Your task to perform on an android device: Do I have any events this weekend? Image 0: 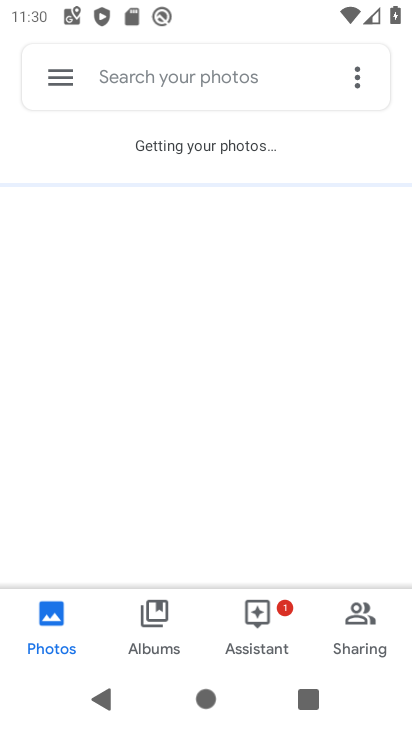
Step 0: press home button
Your task to perform on an android device: Do I have any events this weekend? Image 1: 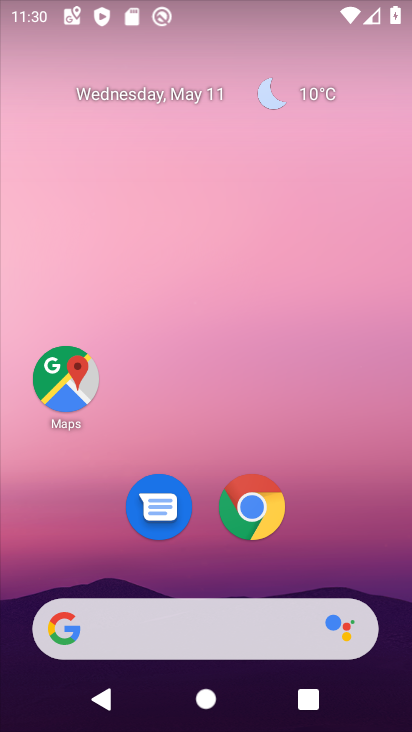
Step 1: drag from (343, 475) to (273, 184)
Your task to perform on an android device: Do I have any events this weekend? Image 2: 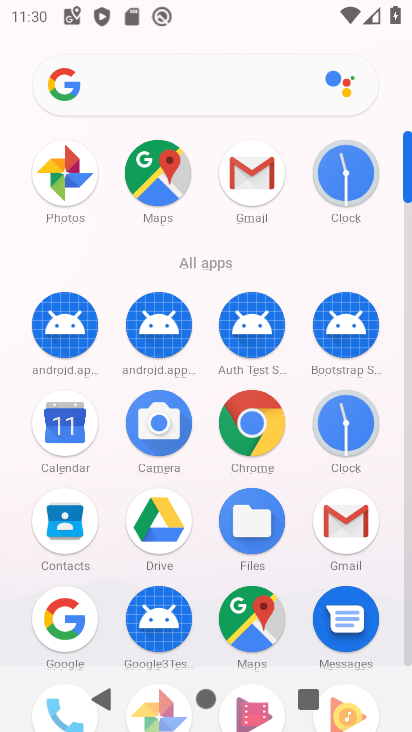
Step 2: click (65, 427)
Your task to perform on an android device: Do I have any events this weekend? Image 3: 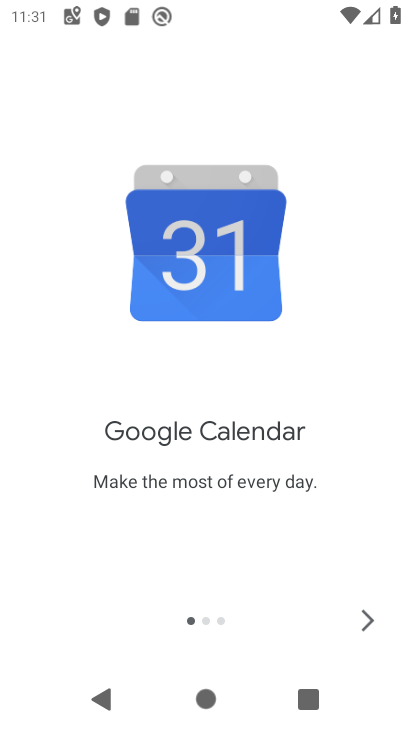
Step 3: click (365, 622)
Your task to perform on an android device: Do I have any events this weekend? Image 4: 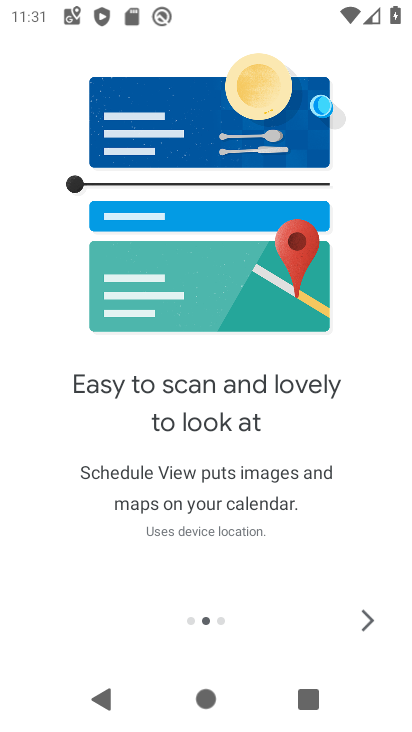
Step 4: click (365, 622)
Your task to perform on an android device: Do I have any events this weekend? Image 5: 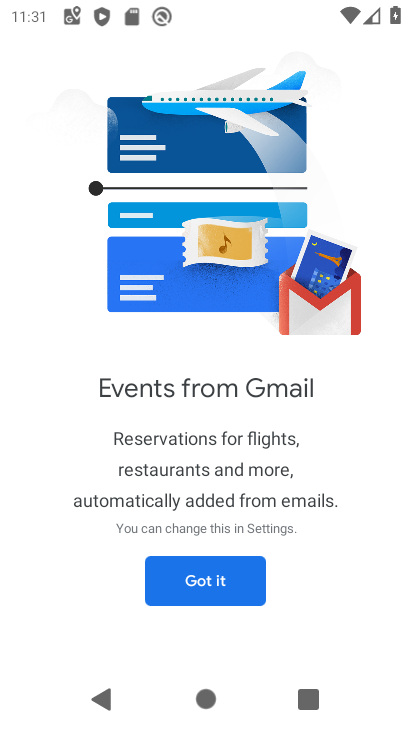
Step 5: click (215, 577)
Your task to perform on an android device: Do I have any events this weekend? Image 6: 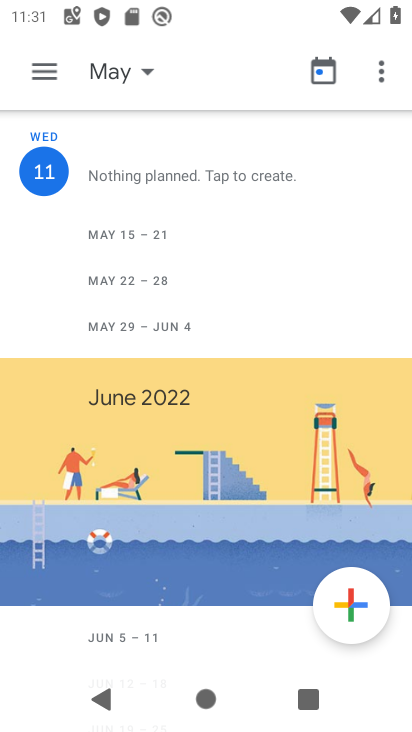
Step 6: click (48, 75)
Your task to perform on an android device: Do I have any events this weekend? Image 7: 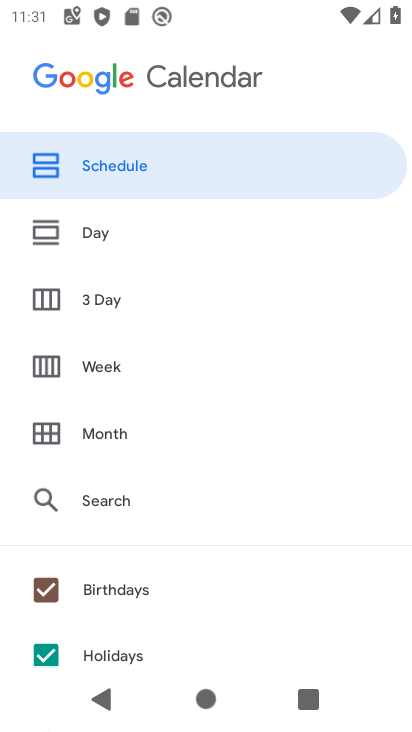
Step 7: click (161, 293)
Your task to perform on an android device: Do I have any events this weekend? Image 8: 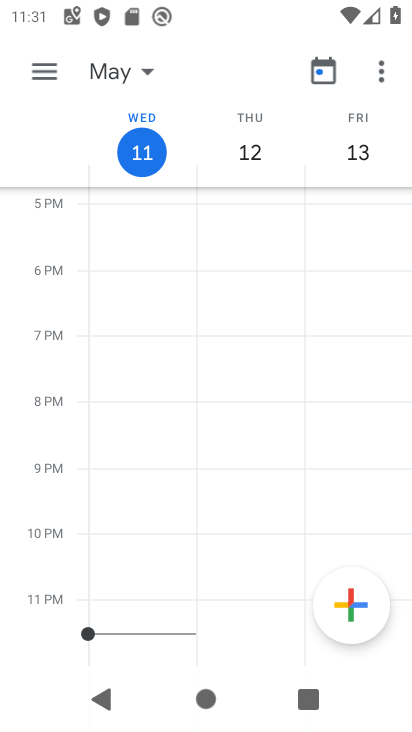
Step 8: click (127, 69)
Your task to perform on an android device: Do I have any events this weekend? Image 9: 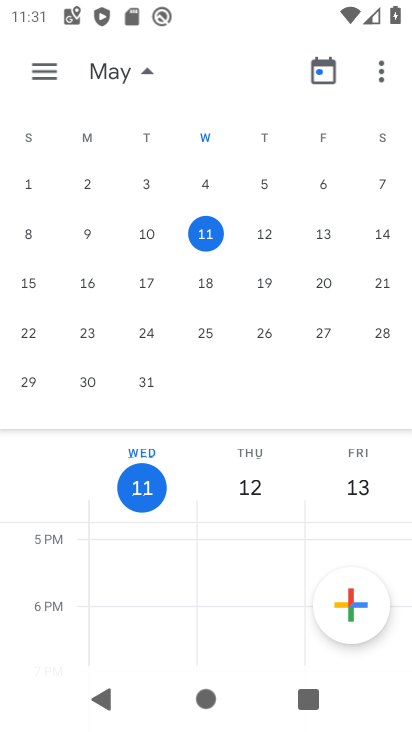
Step 9: click (328, 232)
Your task to perform on an android device: Do I have any events this weekend? Image 10: 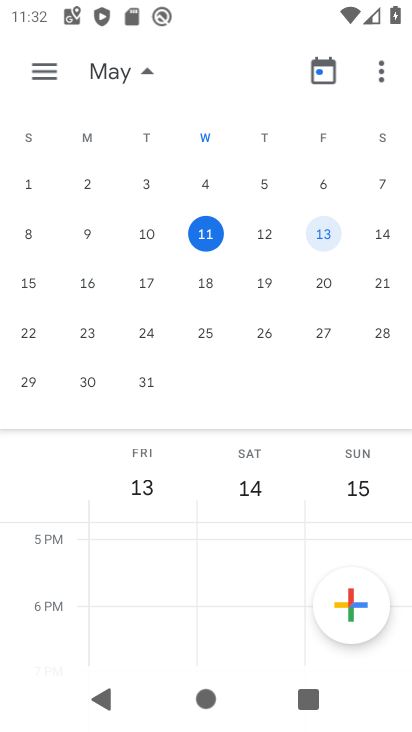
Step 10: task complete